Your task to perform on an android device: Show me the alarms in the clock app Image 0: 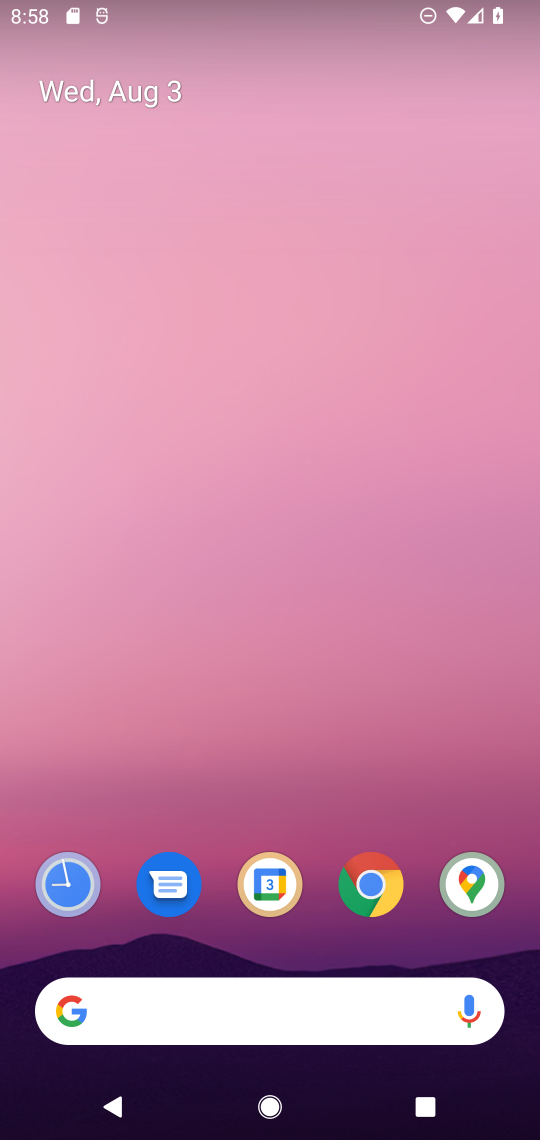
Step 0: click (92, 887)
Your task to perform on an android device: Show me the alarms in the clock app Image 1: 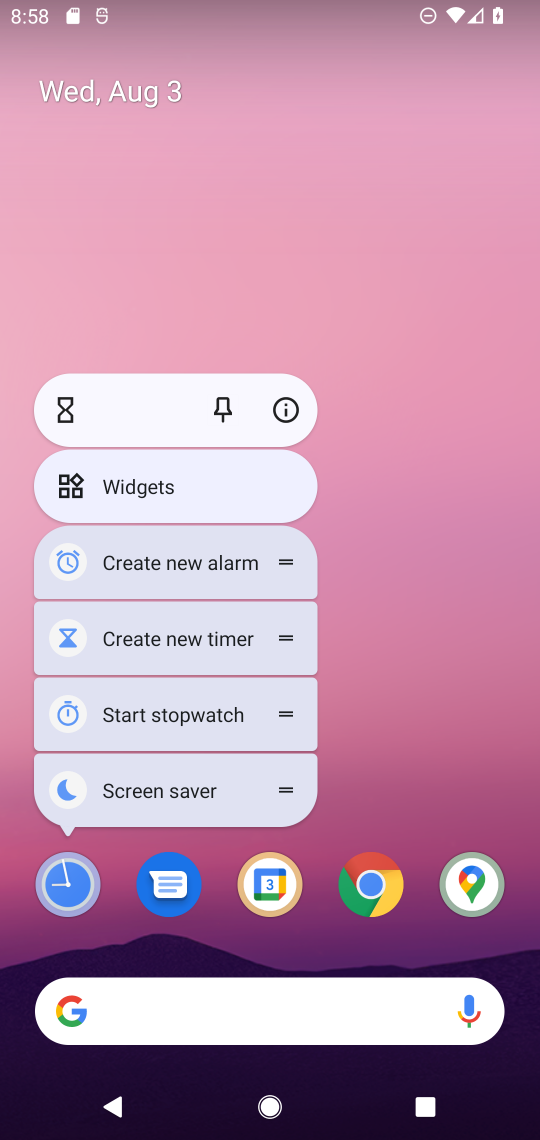
Step 1: click (55, 886)
Your task to perform on an android device: Show me the alarms in the clock app Image 2: 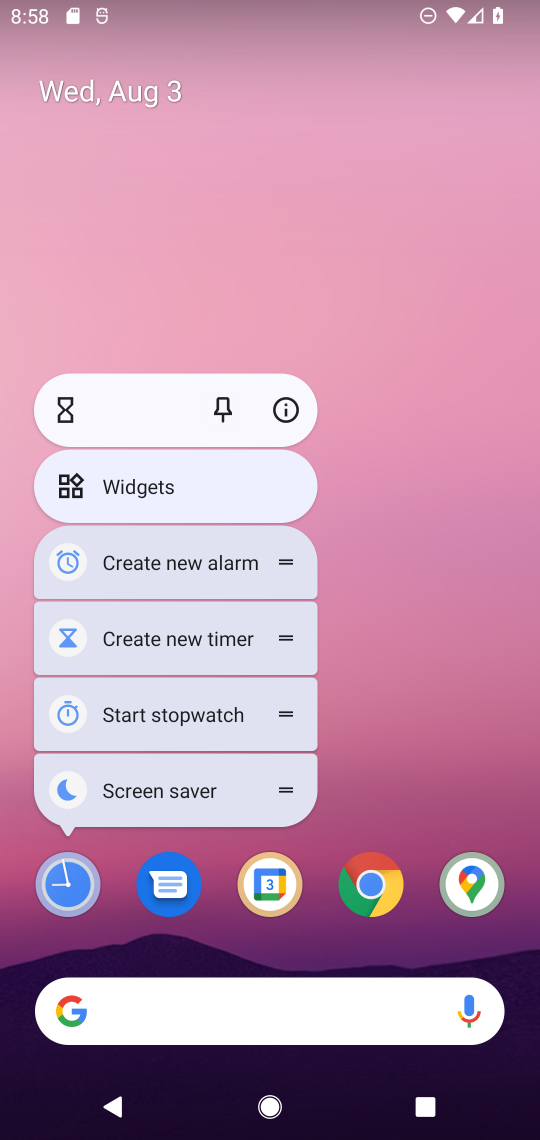
Step 2: click (62, 875)
Your task to perform on an android device: Show me the alarms in the clock app Image 3: 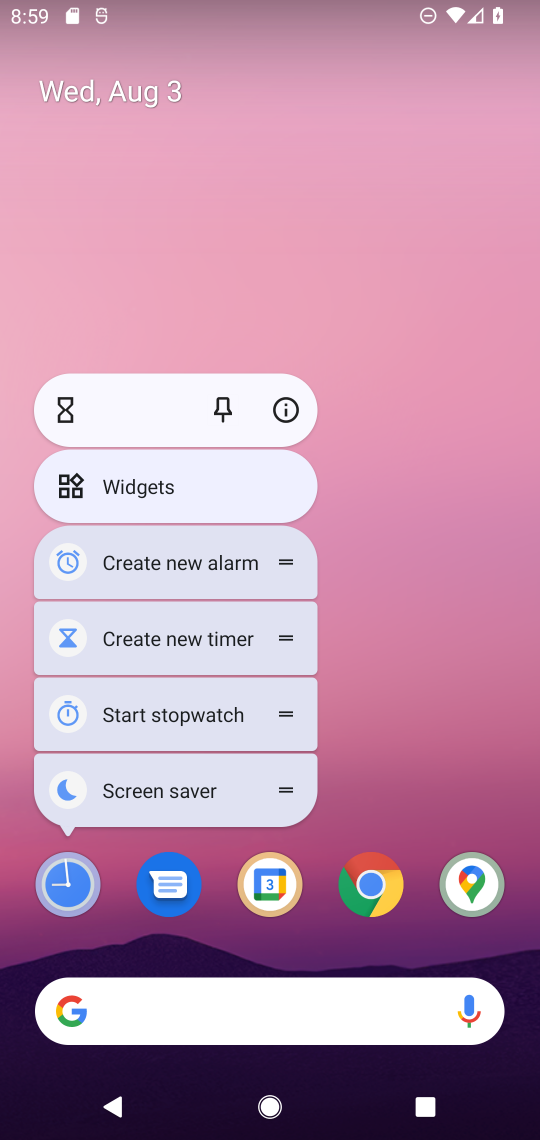
Step 3: task complete